Your task to perform on an android device: Open battery settings Image 0: 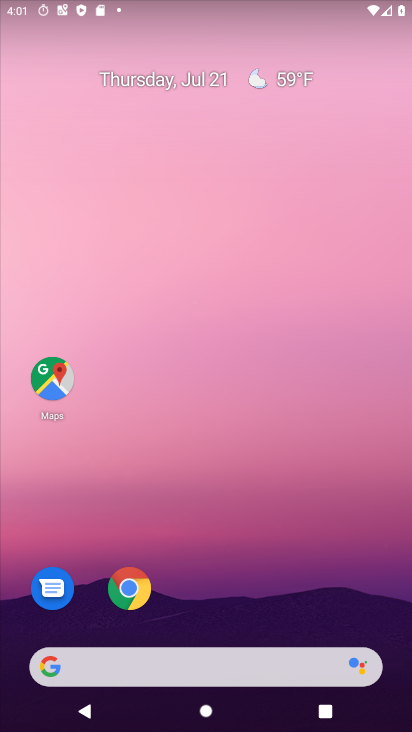
Step 0: drag from (205, 624) to (188, 161)
Your task to perform on an android device: Open battery settings Image 1: 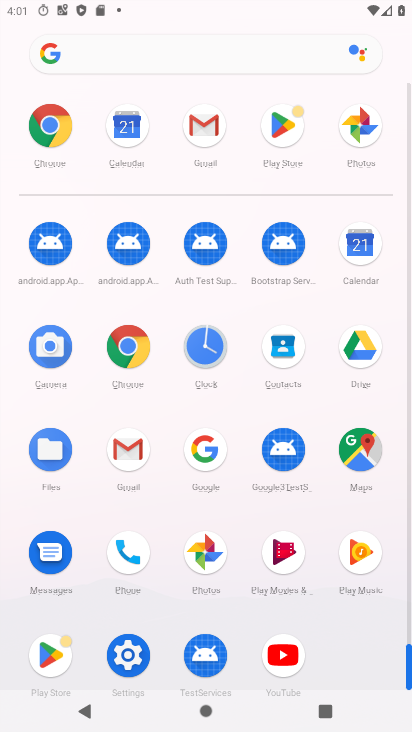
Step 1: click (134, 654)
Your task to perform on an android device: Open battery settings Image 2: 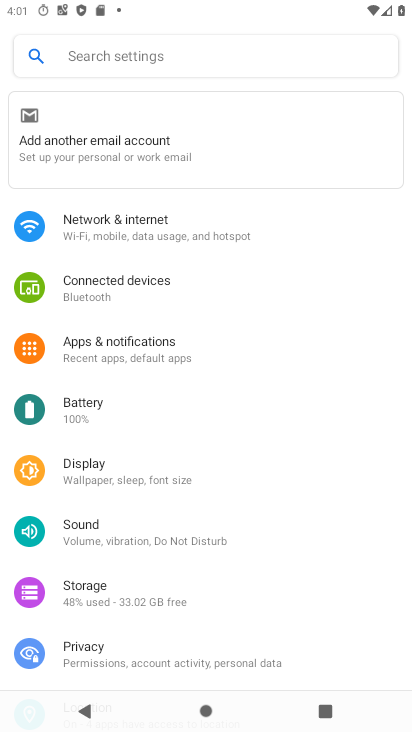
Step 2: click (80, 431)
Your task to perform on an android device: Open battery settings Image 3: 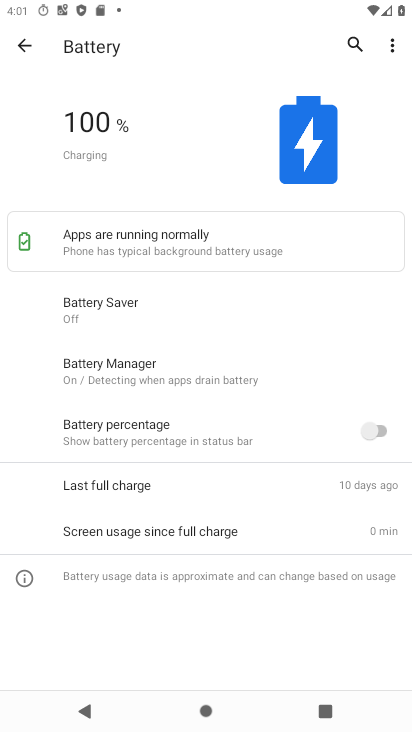
Step 3: task complete